Your task to perform on an android device: Open sound settings Image 0: 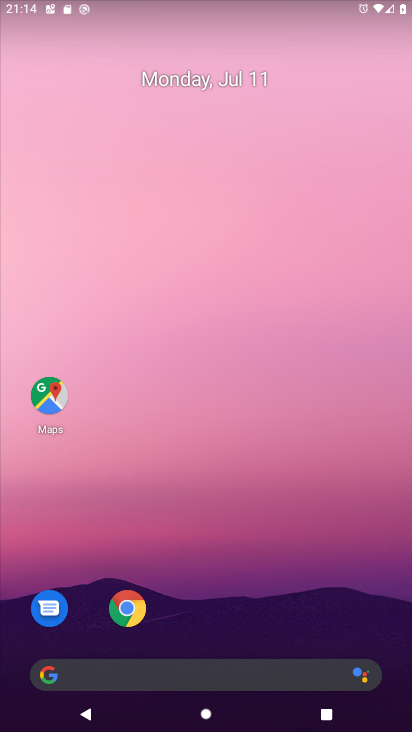
Step 0: drag from (310, 615) to (277, 90)
Your task to perform on an android device: Open sound settings Image 1: 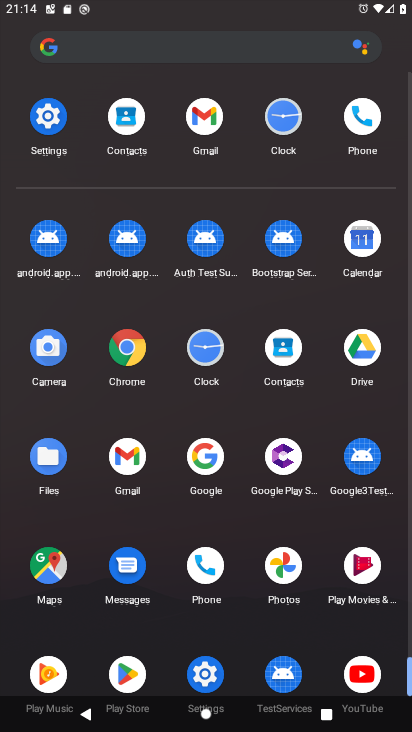
Step 1: click (31, 144)
Your task to perform on an android device: Open sound settings Image 2: 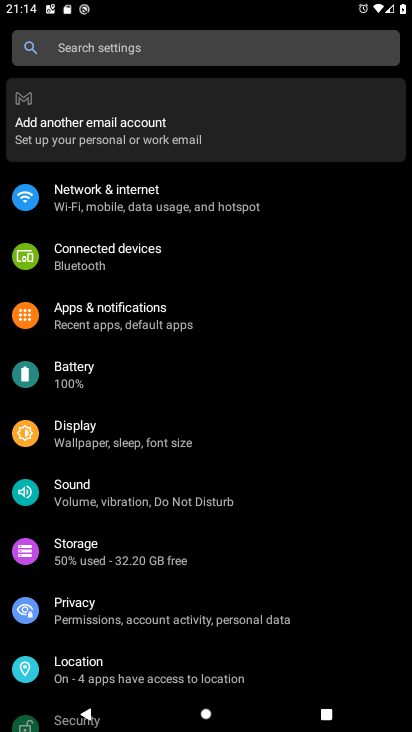
Step 2: click (129, 497)
Your task to perform on an android device: Open sound settings Image 3: 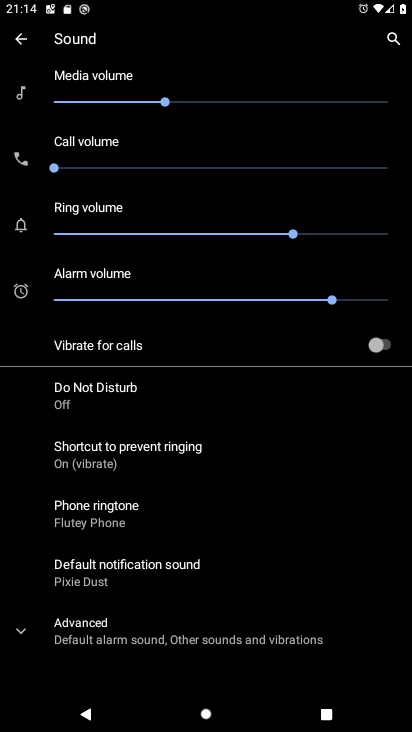
Step 3: task complete